Your task to perform on an android device: Open Chrome and go to settings Image 0: 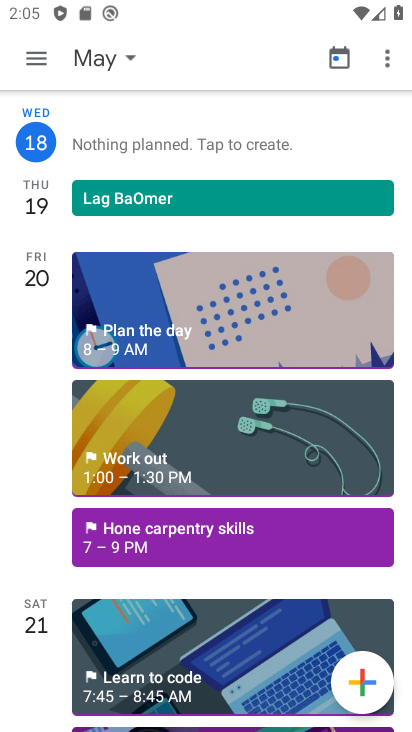
Step 0: press home button
Your task to perform on an android device: Open Chrome and go to settings Image 1: 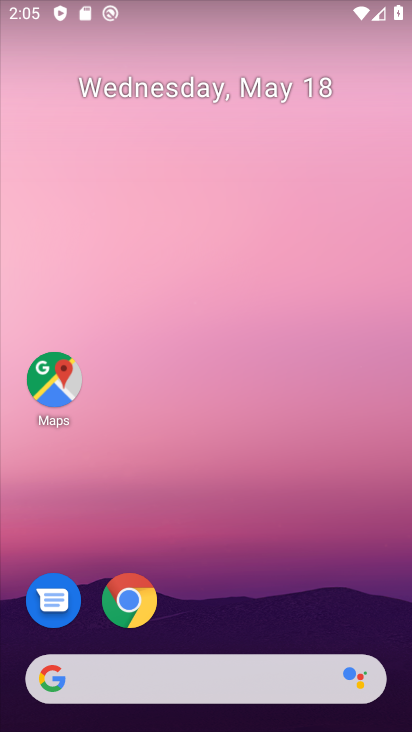
Step 1: click (131, 596)
Your task to perform on an android device: Open Chrome and go to settings Image 2: 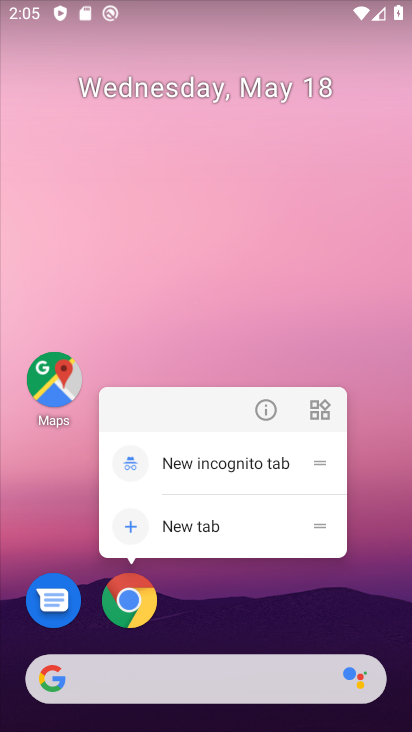
Step 2: click (146, 593)
Your task to perform on an android device: Open Chrome and go to settings Image 3: 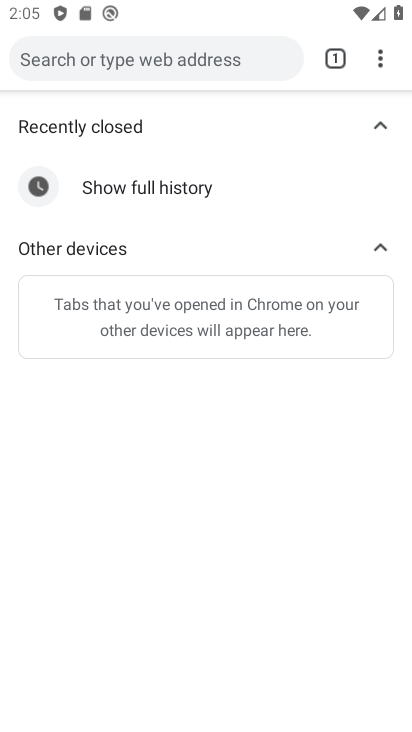
Step 3: task complete